Your task to perform on an android device: Toggle the flashlight Image 0: 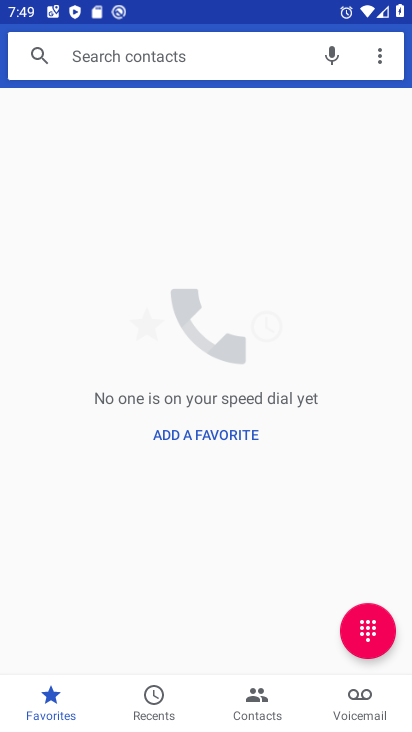
Step 0: press home button
Your task to perform on an android device: Toggle the flashlight Image 1: 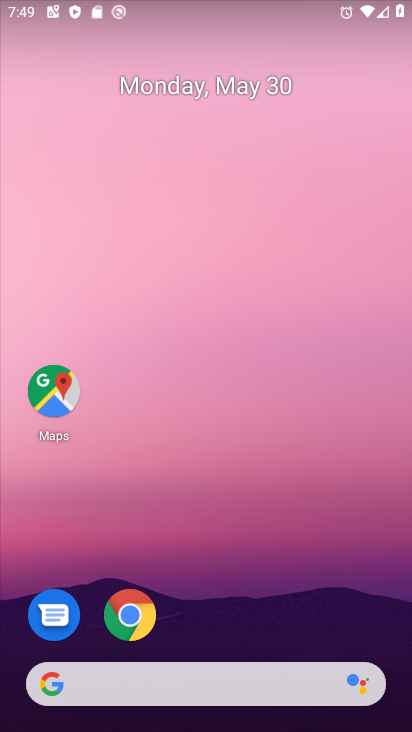
Step 1: drag from (373, 394) to (389, 43)
Your task to perform on an android device: Toggle the flashlight Image 2: 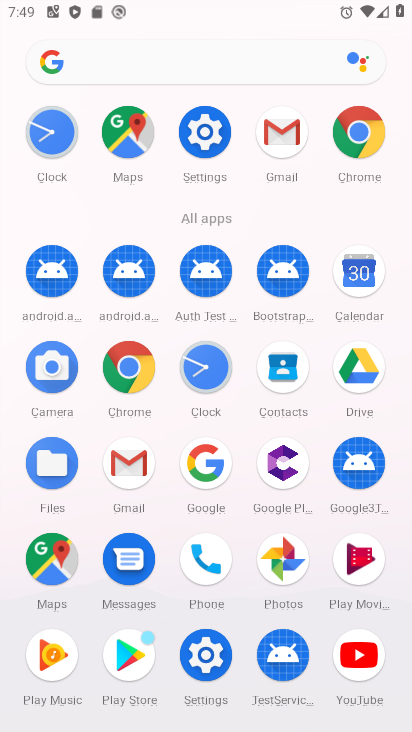
Step 2: click (183, 140)
Your task to perform on an android device: Toggle the flashlight Image 3: 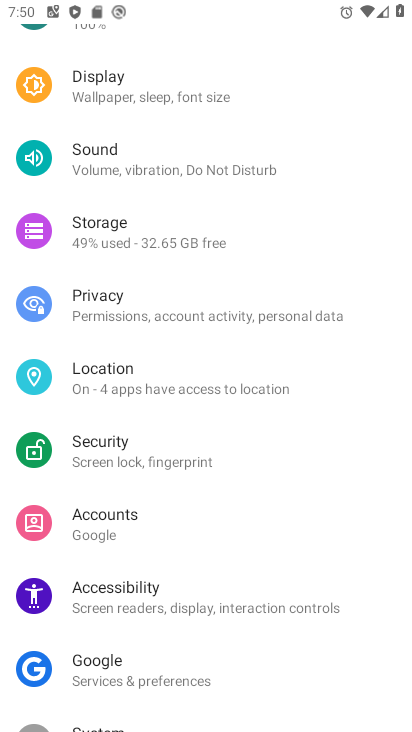
Step 3: task complete